Your task to perform on an android device: Open wifi settings Image 0: 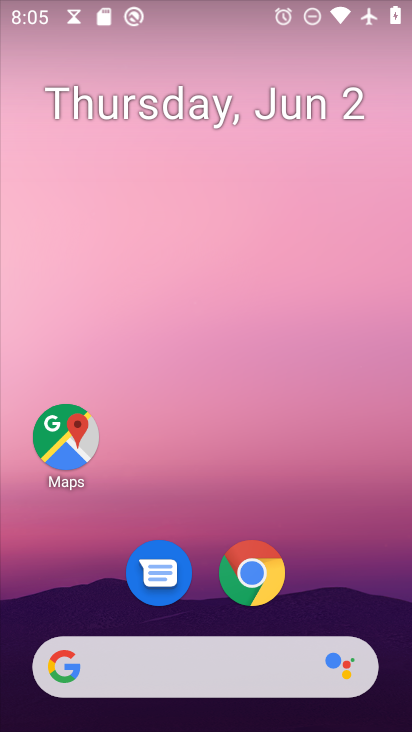
Step 0: press home button
Your task to perform on an android device: Open wifi settings Image 1: 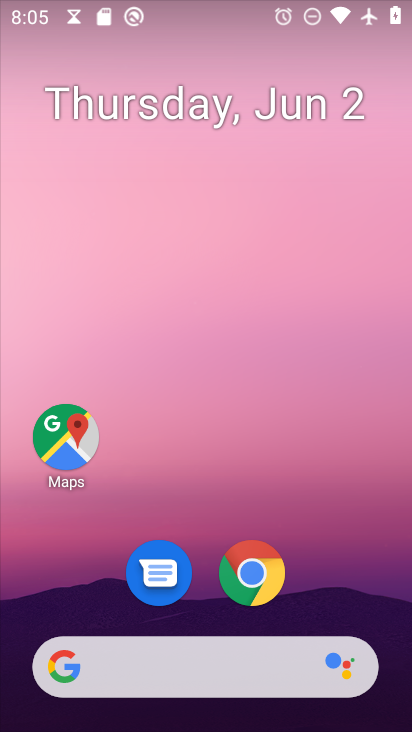
Step 1: drag from (182, 663) to (285, 14)
Your task to perform on an android device: Open wifi settings Image 2: 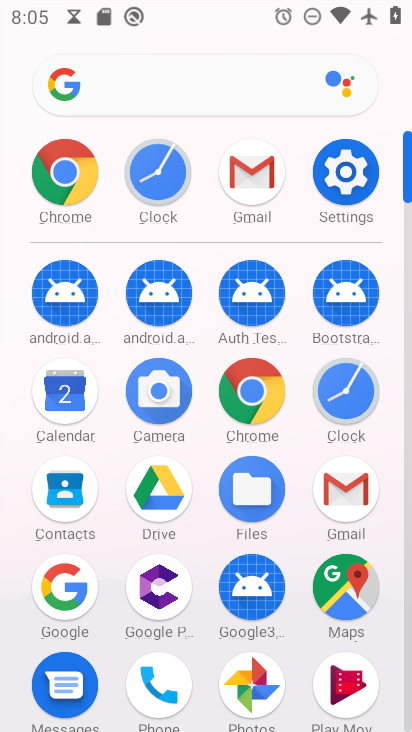
Step 2: click (349, 176)
Your task to perform on an android device: Open wifi settings Image 3: 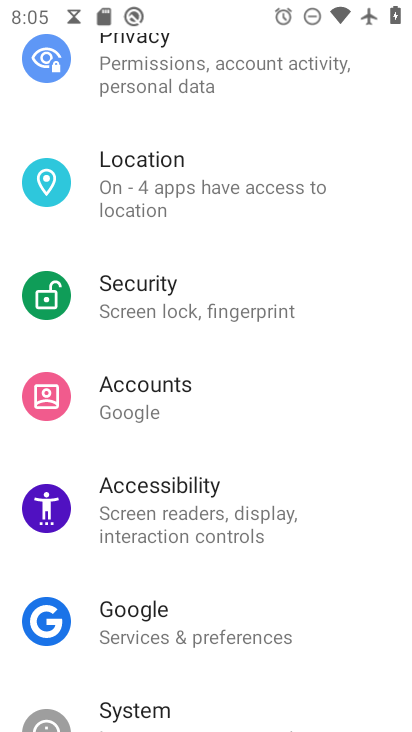
Step 3: drag from (350, 112) to (240, 595)
Your task to perform on an android device: Open wifi settings Image 4: 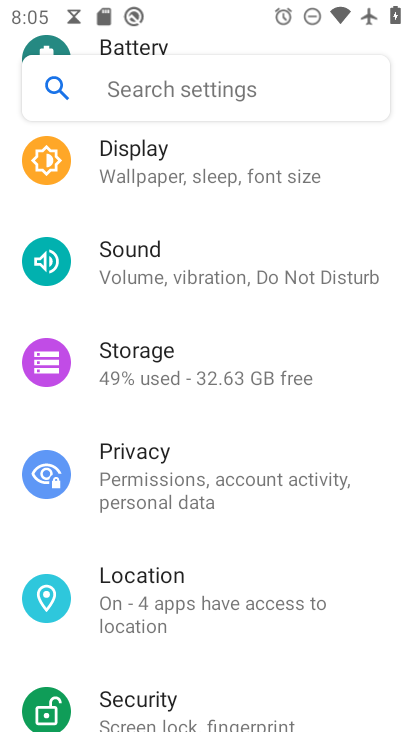
Step 4: drag from (353, 188) to (278, 603)
Your task to perform on an android device: Open wifi settings Image 5: 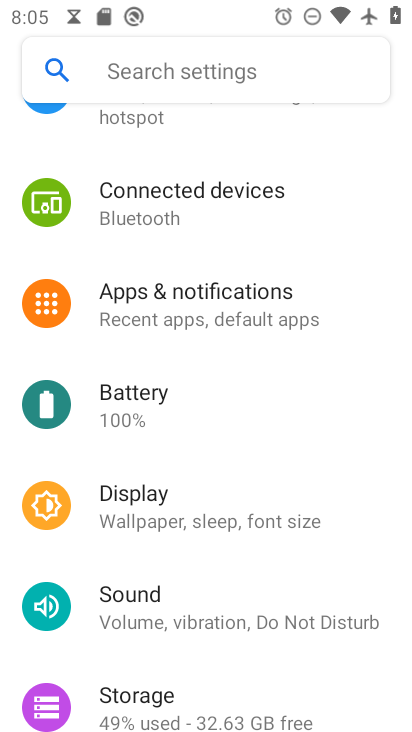
Step 5: drag from (345, 202) to (268, 634)
Your task to perform on an android device: Open wifi settings Image 6: 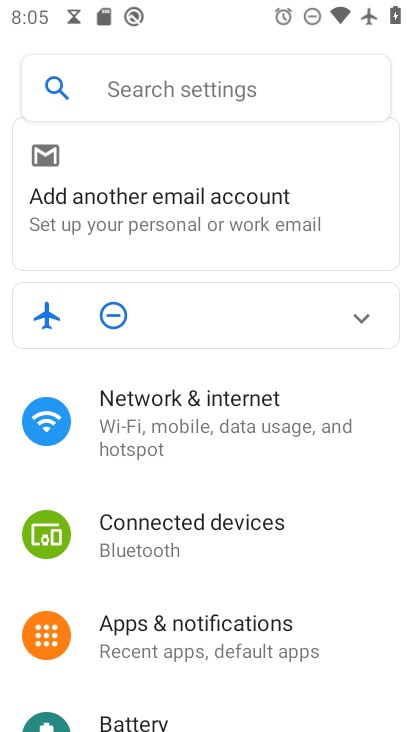
Step 6: click (198, 413)
Your task to perform on an android device: Open wifi settings Image 7: 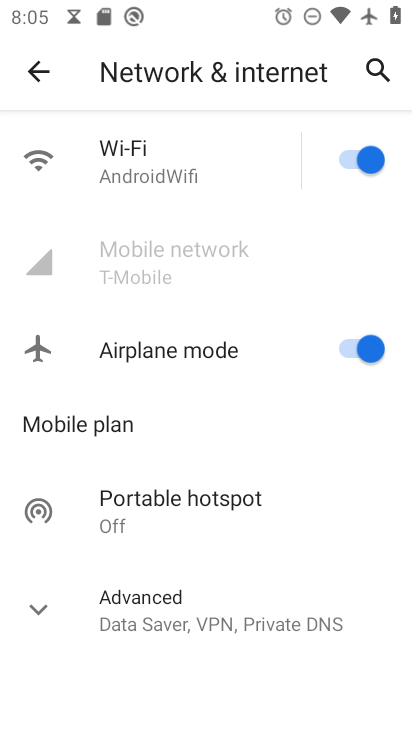
Step 7: click (160, 178)
Your task to perform on an android device: Open wifi settings Image 8: 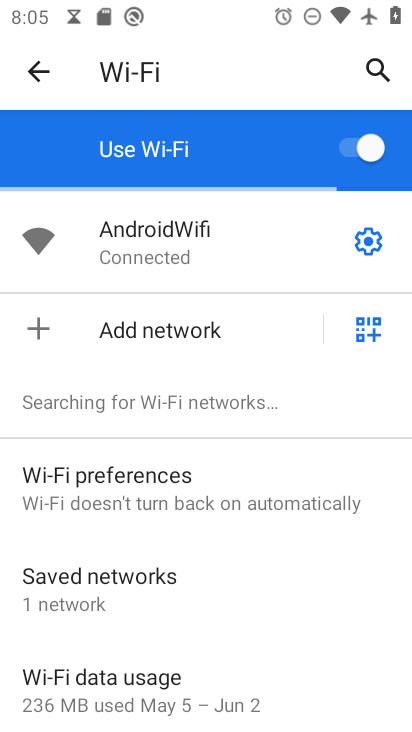
Step 8: task complete